Your task to perform on an android device: Show me productivity apps on the Play Store Image 0: 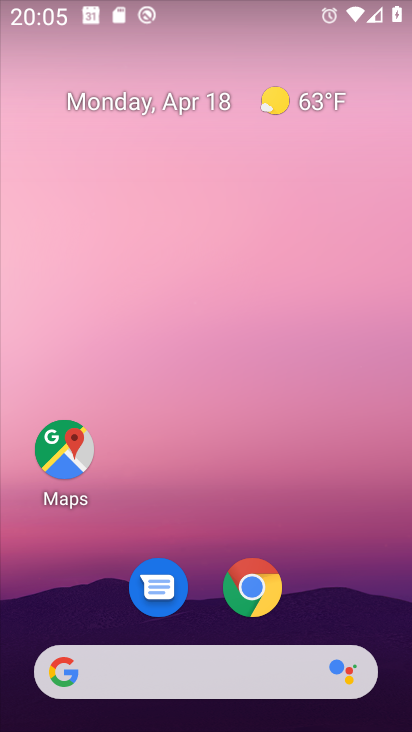
Step 0: drag from (347, 589) to (281, 142)
Your task to perform on an android device: Show me productivity apps on the Play Store Image 1: 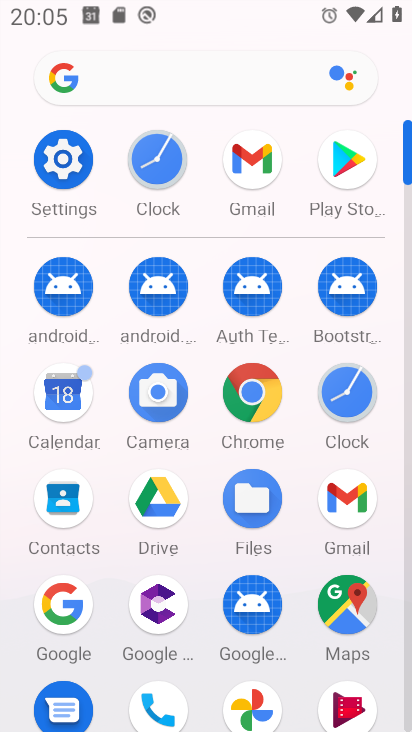
Step 1: click (334, 190)
Your task to perform on an android device: Show me productivity apps on the Play Store Image 2: 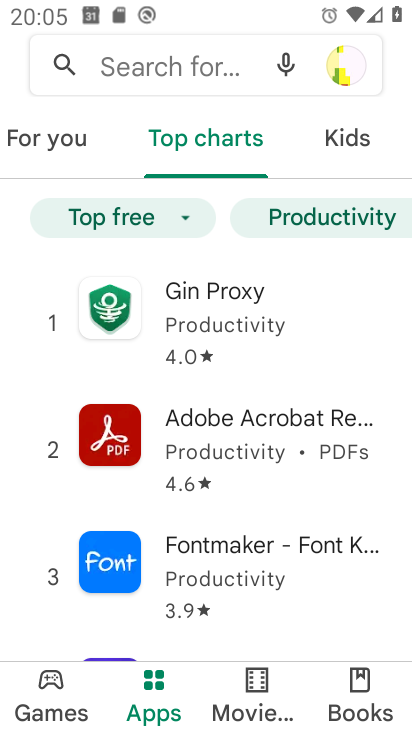
Step 2: task complete